Your task to perform on an android device: open device folders in google photos Image 0: 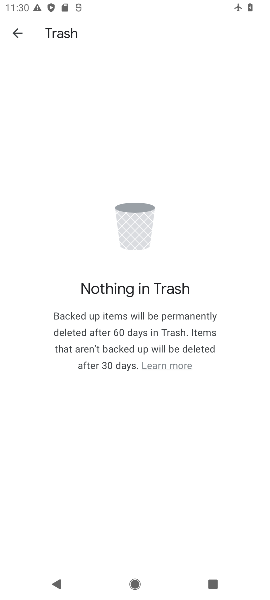
Step 0: press home button
Your task to perform on an android device: open device folders in google photos Image 1: 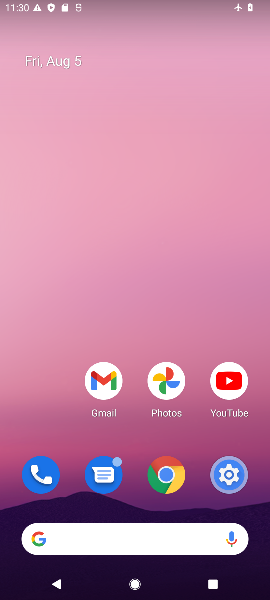
Step 1: click (172, 400)
Your task to perform on an android device: open device folders in google photos Image 2: 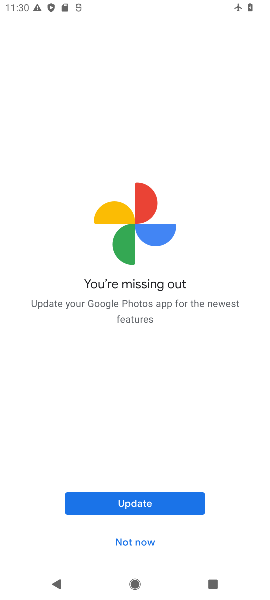
Step 2: click (141, 543)
Your task to perform on an android device: open device folders in google photos Image 3: 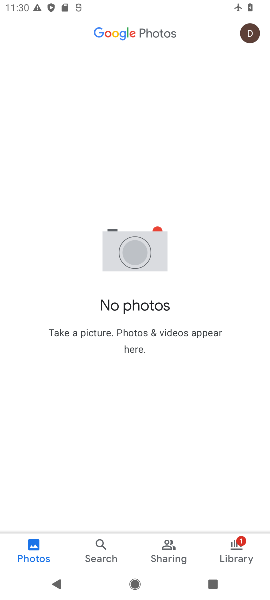
Step 3: click (166, 555)
Your task to perform on an android device: open device folders in google photos Image 4: 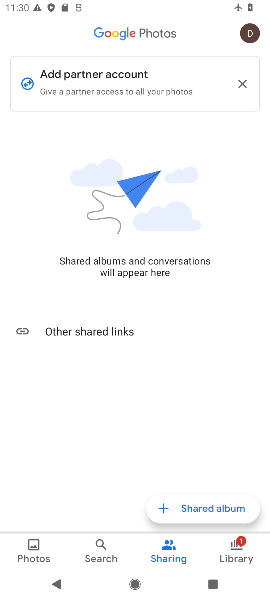
Step 4: click (241, 545)
Your task to perform on an android device: open device folders in google photos Image 5: 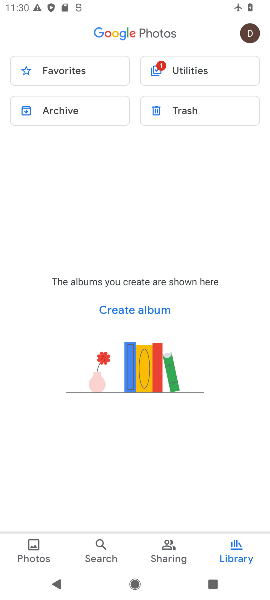
Step 5: click (198, 68)
Your task to perform on an android device: open device folders in google photos Image 6: 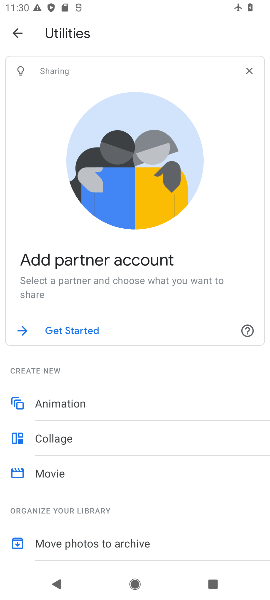
Step 6: drag from (103, 478) to (129, 325)
Your task to perform on an android device: open device folders in google photos Image 7: 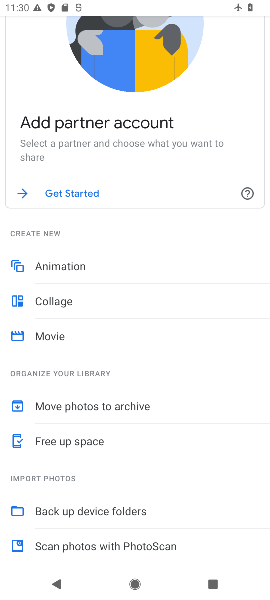
Step 7: drag from (93, 502) to (100, 313)
Your task to perform on an android device: open device folders in google photos Image 8: 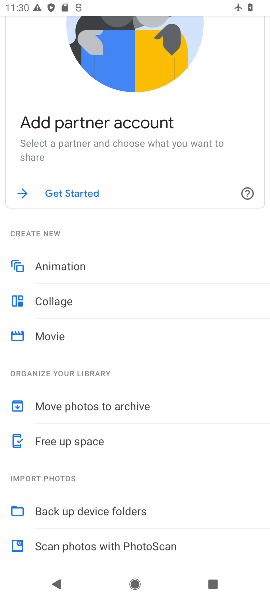
Step 8: click (90, 510)
Your task to perform on an android device: open device folders in google photos Image 9: 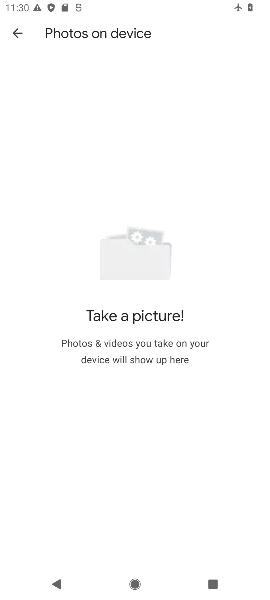
Step 9: task complete